Your task to perform on an android device: Open Yahoo.com Image 0: 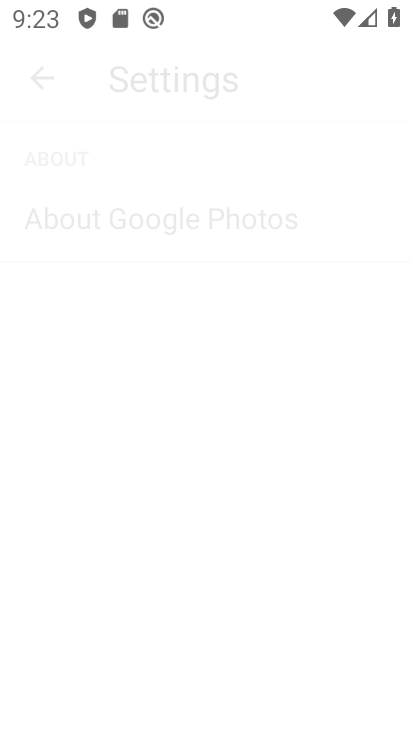
Step 0: drag from (368, 553) to (236, 162)
Your task to perform on an android device: Open Yahoo.com Image 1: 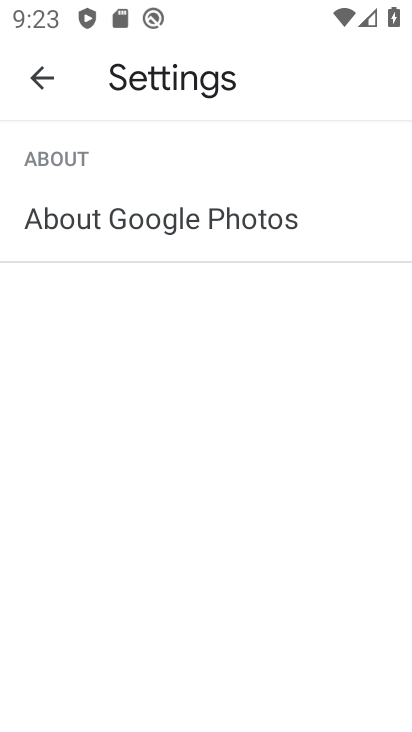
Step 1: press home button
Your task to perform on an android device: Open Yahoo.com Image 2: 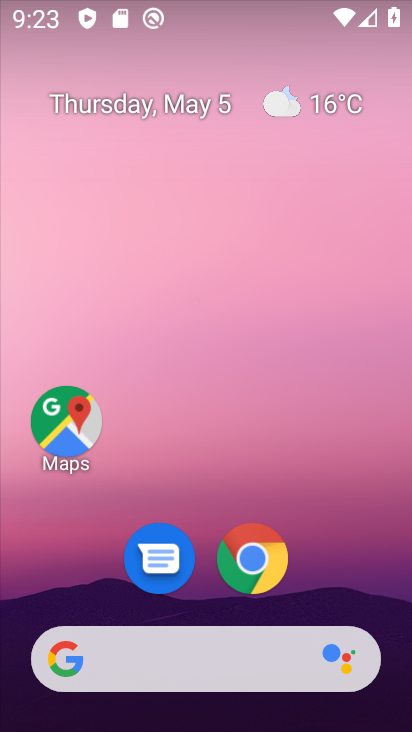
Step 2: click (270, 556)
Your task to perform on an android device: Open Yahoo.com Image 3: 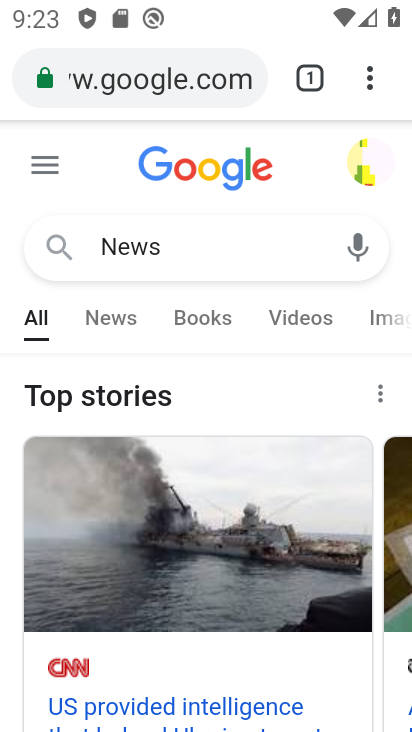
Step 3: click (196, 87)
Your task to perform on an android device: Open Yahoo.com Image 4: 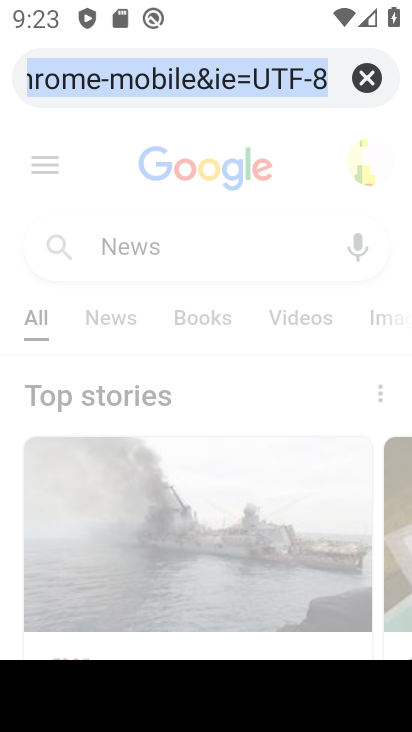
Step 4: type "yahoo.com"
Your task to perform on an android device: Open Yahoo.com Image 5: 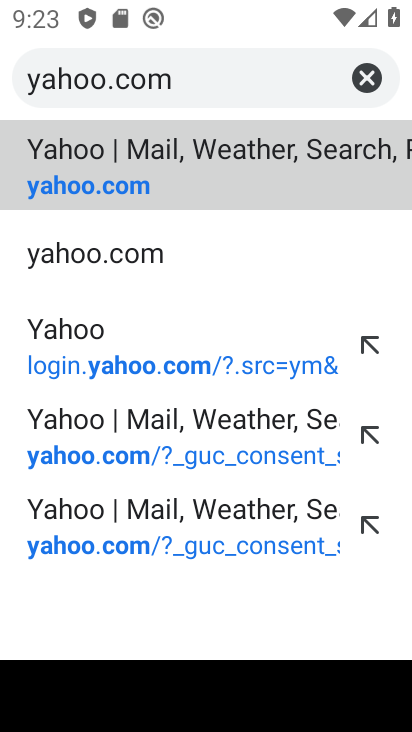
Step 5: click (177, 145)
Your task to perform on an android device: Open Yahoo.com Image 6: 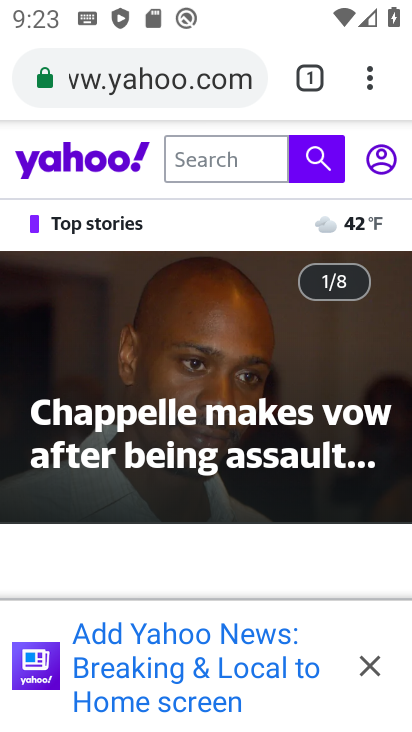
Step 6: task complete